Your task to perform on an android device: Open the stopwatch Image 0: 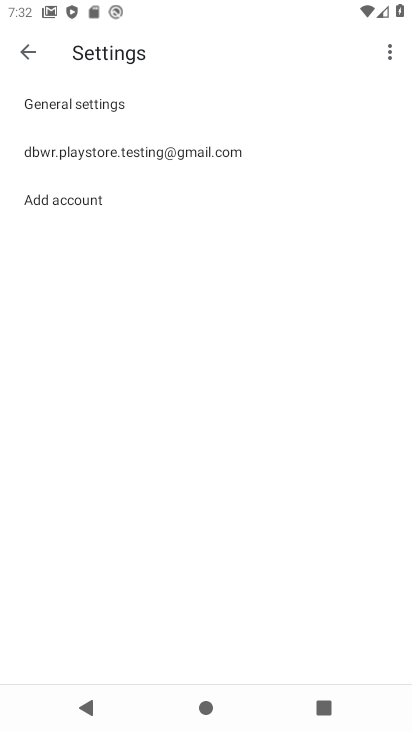
Step 0: press back button
Your task to perform on an android device: Open the stopwatch Image 1: 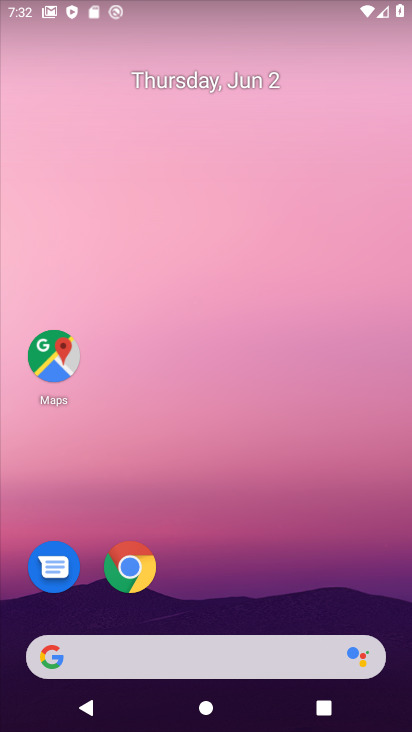
Step 1: drag from (255, 589) to (263, 74)
Your task to perform on an android device: Open the stopwatch Image 2: 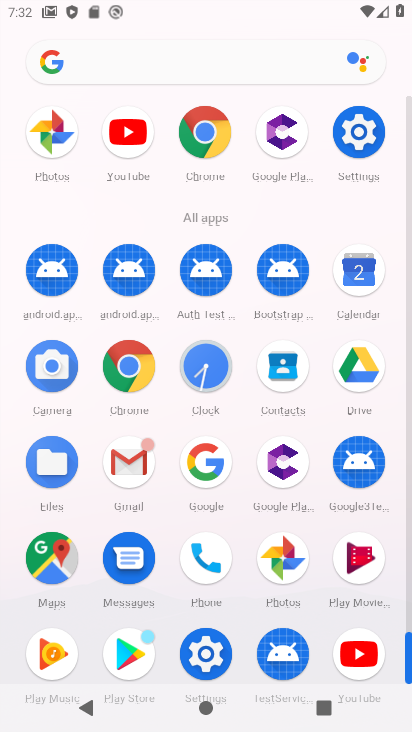
Step 2: click (207, 367)
Your task to perform on an android device: Open the stopwatch Image 3: 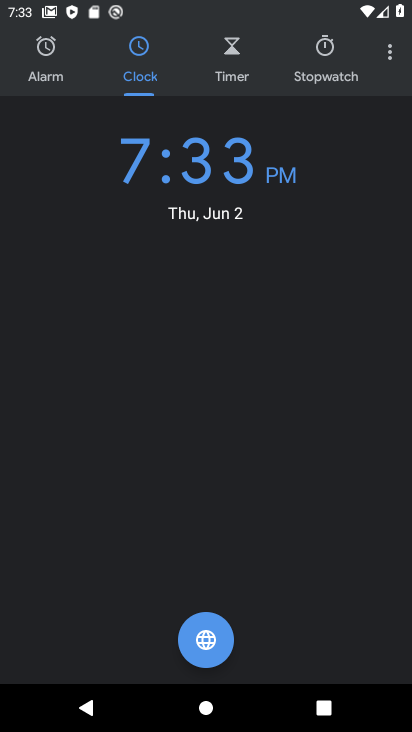
Step 3: click (323, 49)
Your task to perform on an android device: Open the stopwatch Image 4: 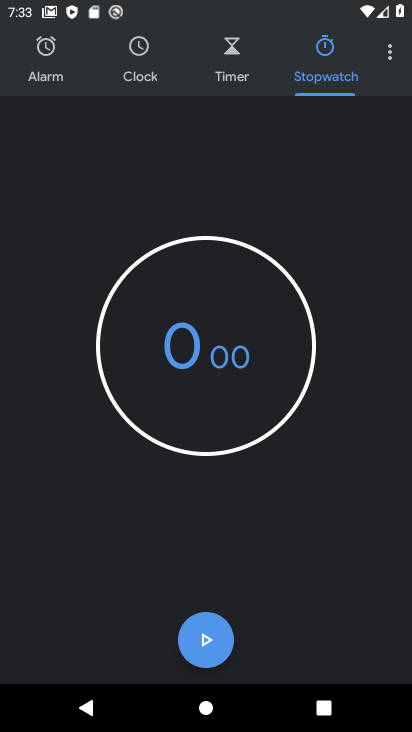
Step 4: task complete